Your task to perform on an android device: turn vacation reply on in the gmail app Image 0: 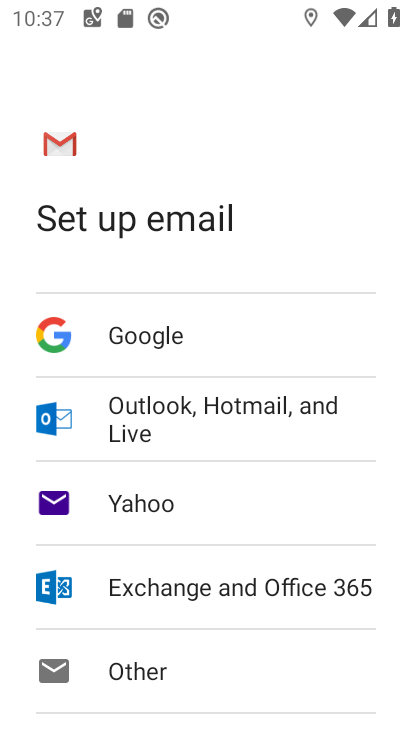
Step 0: press home button
Your task to perform on an android device: turn vacation reply on in the gmail app Image 1: 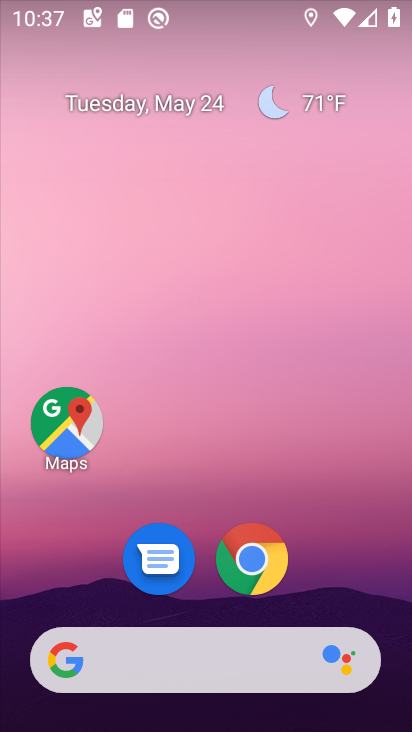
Step 1: drag from (399, 661) to (216, 15)
Your task to perform on an android device: turn vacation reply on in the gmail app Image 2: 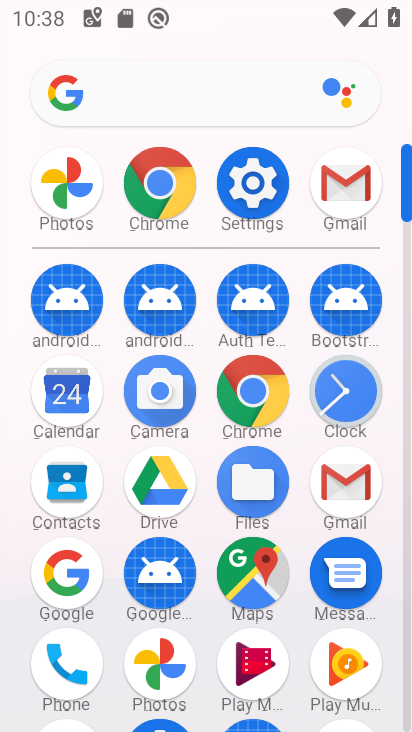
Step 2: click (350, 491)
Your task to perform on an android device: turn vacation reply on in the gmail app Image 3: 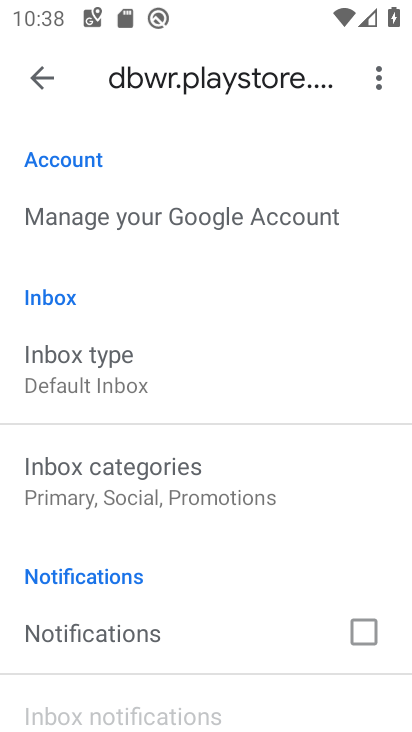
Step 3: drag from (126, 615) to (190, 107)
Your task to perform on an android device: turn vacation reply on in the gmail app Image 4: 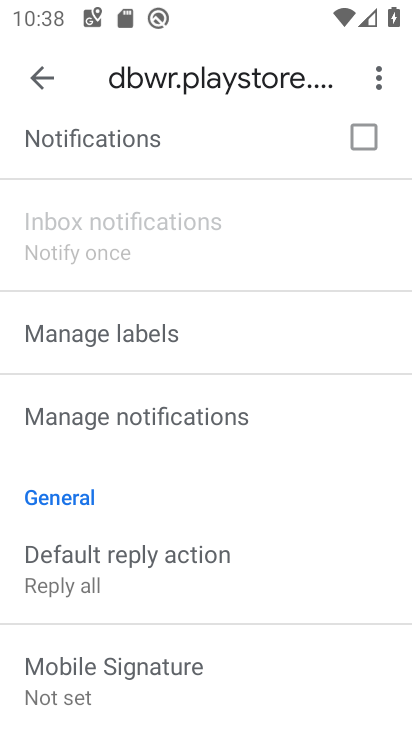
Step 4: drag from (133, 545) to (206, 105)
Your task to perform on an android device: turn vacation reply on in the gmail app Image 5: 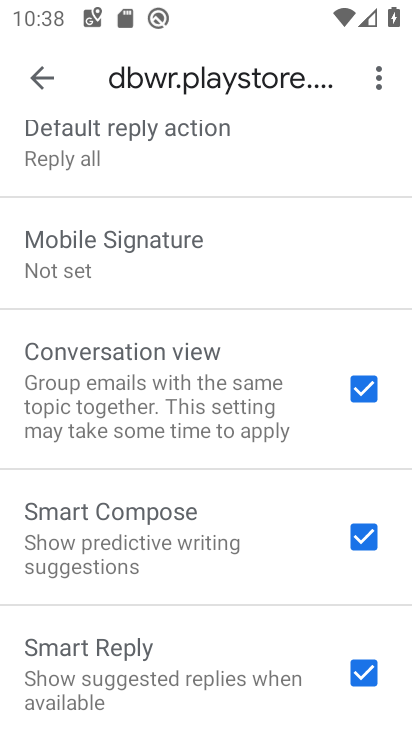
Step 5: drag from (182, 586) to (213, 150)
Your task to perform on an android device: turn vacation reply on in the gmail app Image 6: 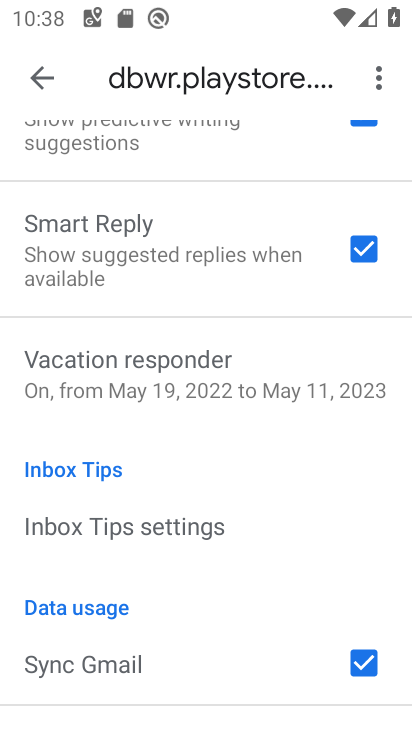
Step 6: click (215, 373)
Your task to perform on an android device: turn vacation reply on in the gmail app Image 7: 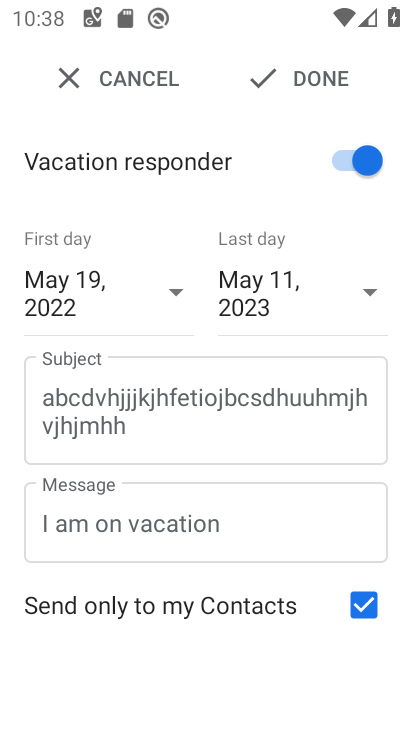
Step 7: task complete